Your task to perform on an android device: Clear all items from cart on walmart. Search for "lenovo thinkpad" on walmart, select the first entry, add it to the cart, then select checkout. Image 0: 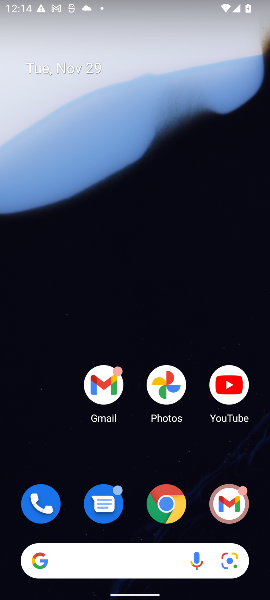
Step 0: click (161, 503)
Your task to perform on an android device: Clear all items from cart on walmart. Search for "lenovo thinkpad" on walmart, select the first entry, add it to the cart, then select checkout. Image 1: 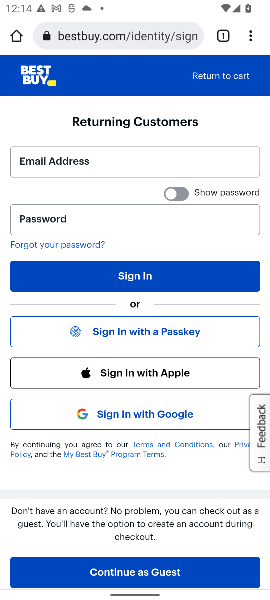
Step 1: click (104, 38)
Your task to perform on an android device: Clear all items from cart on walmart. Search for "lenovo thinkpad" on walmart, select the first entry, add it to the cart, then select checkout. Image 2: 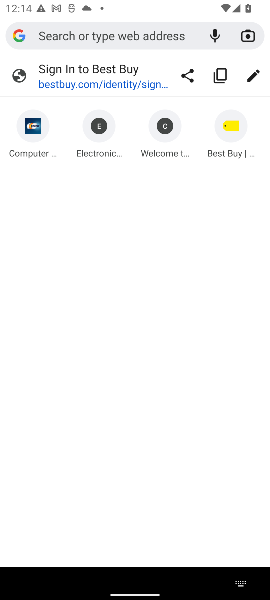
Step 2: type "walmart.com"
Your task to perform on an android device: Clear all items from cart on walmart. Search for "lenovo thinkpad" on walmart, select the first entry, add it to the cart, then select checkout. Image 3: 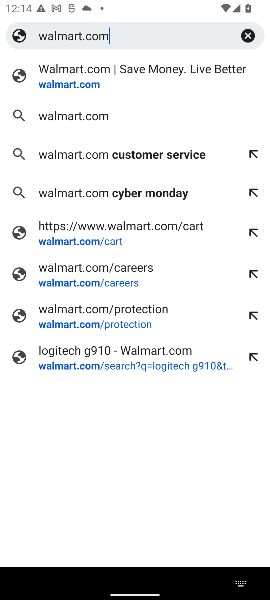
Step 3: click (39, 81)
Your task to perform on an android device: Clear all items from cart on walmart. Search for "lenovo thinkpad" on walmart, select the first entry, add it to the cart, then select checkout. Image 4: 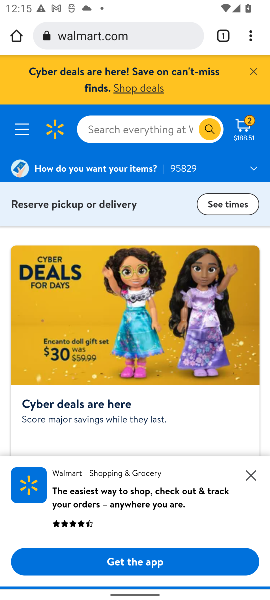
Step 4: click (241, 123)
Your task to perform on an android device: Clear all items from cart on walmart. Search for "lenovo thinkpad" on walmart, select the first entry, add it to the cart, then select checkout. Image 5: 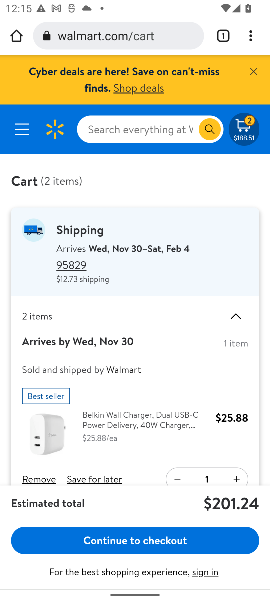
Step 5: click (36, 483)
Your task to perform on an android device: Clear all items from cart on walmart. Search for "lenovo thinkpad" on walmart, select the first entry, add it to the cart, then select checkout. Image 6: 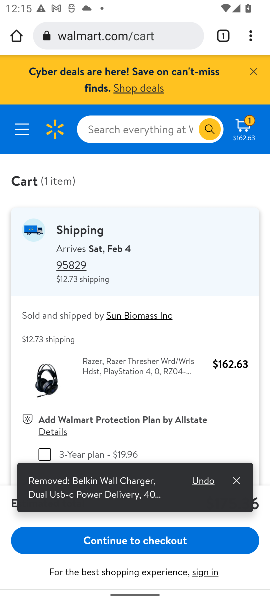
Step 6: drag from (168, 436) to (187, 291)
Your task to perform on an android device: Clear all items from cart on walmart. Search for "lenovo thinkpad" on walmart, select the first entry, add it to the cart, then select checkout. Image 7: 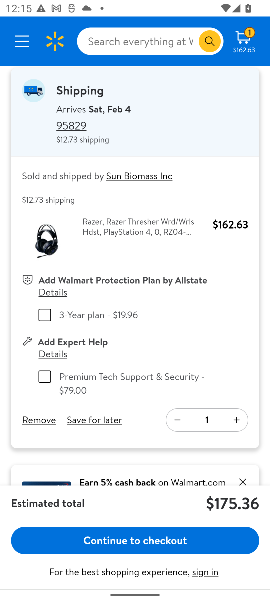
Step 7: click (37, 418)
Your task to perform on an android device: Clear all items from cart on walmart. Search for "lenovo thinkpad" on walmart, select the first entry, add it to the cart, then select checkout. Image 8: 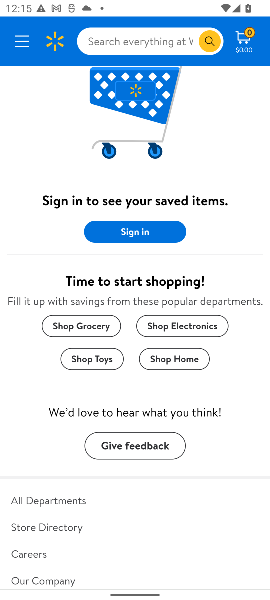
Step 8: click (138, 37)
Your task to perform on an android device: Clear all items from cart on walmart. Search for "lenovo thinkpad" on walmart, select the first entry, add it to the cart, then select checkout. Image 9: 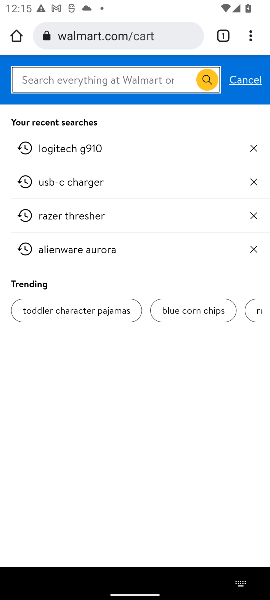
Step 9: type "lenovo thinkpad"
Your task to perform on an android device: Clear all items from cart on walmart. Search for "lenovo thinkpad" on walmart, select the first entry, add it to the cart, then select checkout. Image 10: 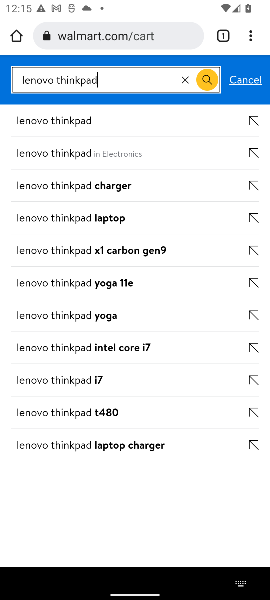
Step 10: click (41, 119)
Your task to perform on an android device: Clear all items from cart on walmart. Search for "lenovo thinkpad" on walmart, select the first entry, add it to the cart, then select checkout. Image 11: 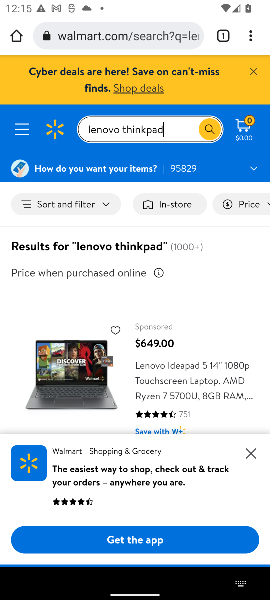
Step 11: task complete